Your task to perform on an android device: turn vacation reply on in the gmail app Image 0: 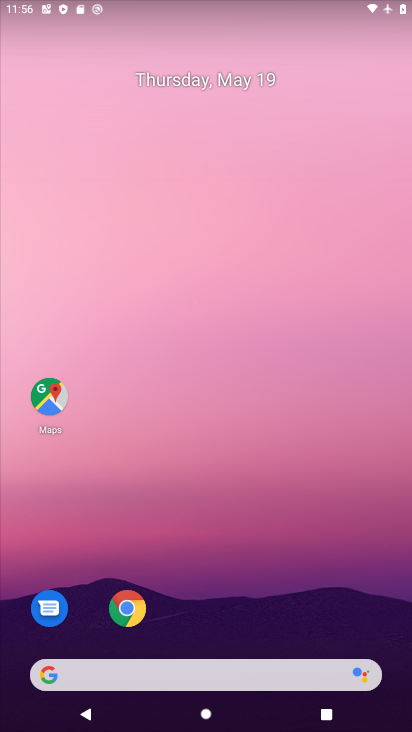
Step 0: drag from (381, 620) to (385, 189)
Your task to perform on an android device: turn vacation reply on in the gmail app Image 1: 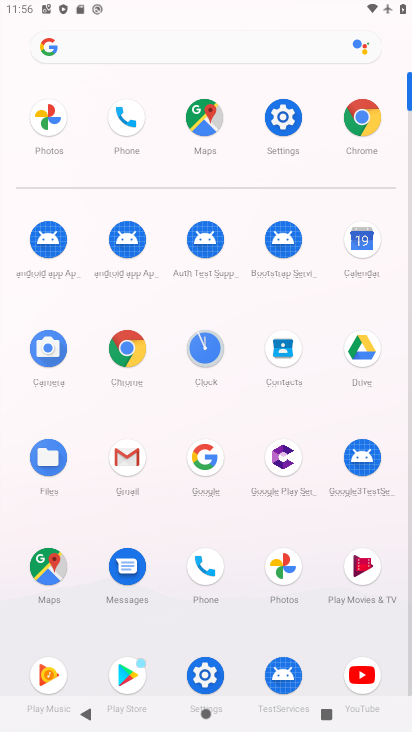
Step 1: click (134, 466)
Your task to perform on an android device: turn vacation reply on in the gmail app Image 2: 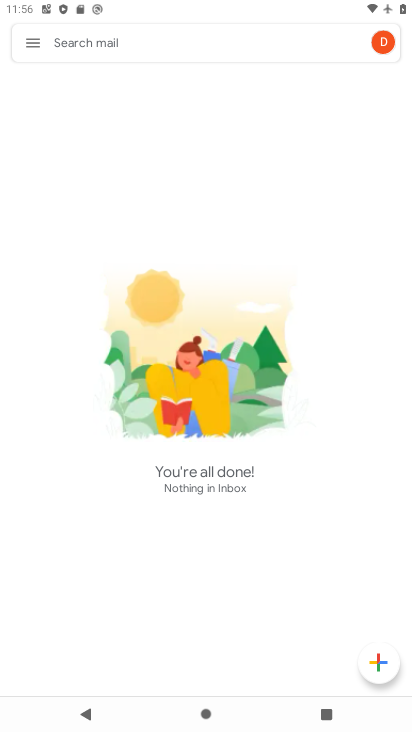
Step 2: click (31, 46)
Your task to perform on an android device: turn vacation reply on in the gmail app Image 3: 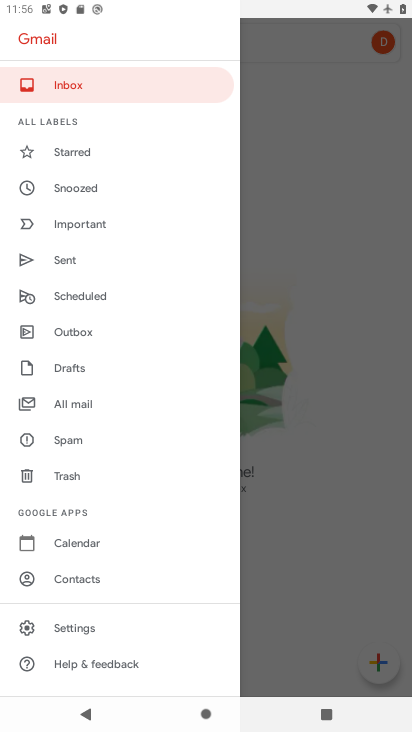
Step 3: drag from (149, 380) to (160, 286)
Your task to perform on an android device: turn vacation reply on in the gmail app Image 4: 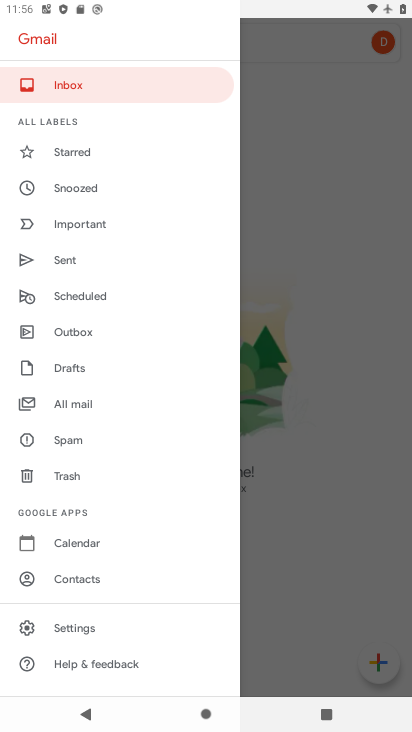
Step 4: click (106, 629)
Your task to perform on an android device: turn vacation reply on in the gmail app Image 5: 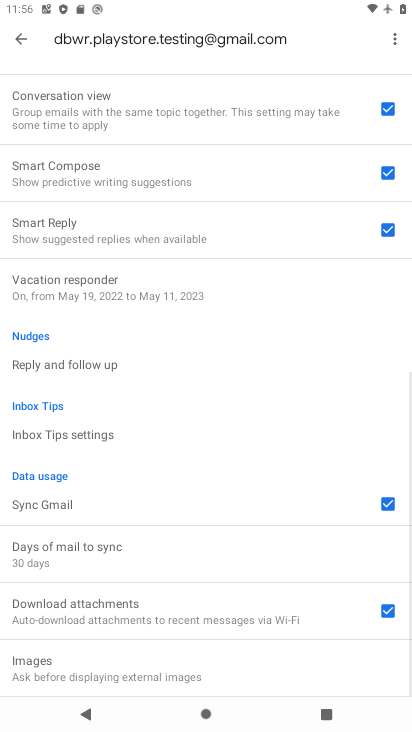
Step 5: drag from (240, 554) to (256, 476)
Your task to perform on an android device: turn vacation reply on in the gmail app Image 6: 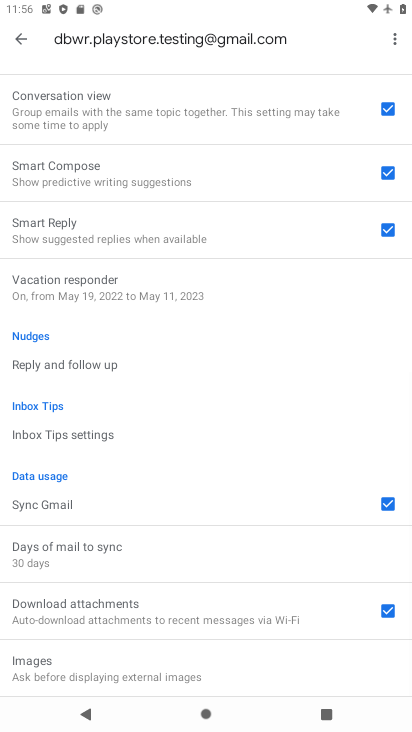
Step 6: drag from (243, 584) to (245, 463)
Your task to perform on an android device: turn vacation reply on in the gmail app Image 7: 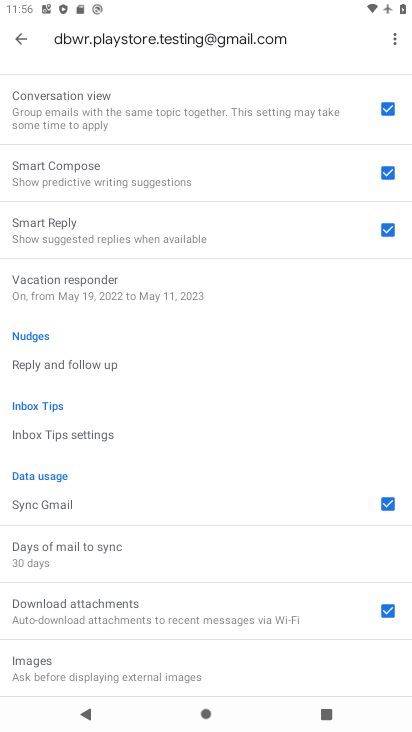
Step 7: drag from (245, 363) to (223, 480)
Your task to perform on an android device: turn vacation reply on in the gmail app Image 8: 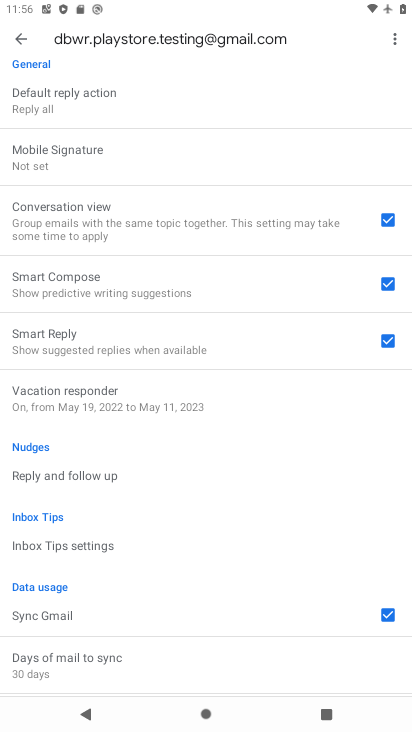
Step 8: drag from (255, 346) to (256, 431)
Your task to perform on an android device: turn vacation reply on in the gmail app Image 9: 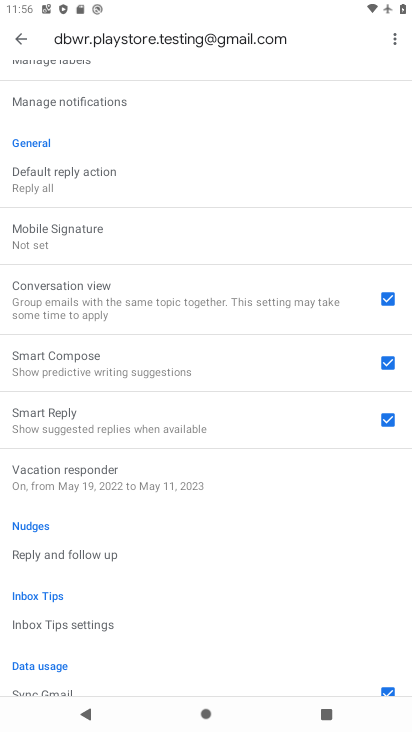
Step 9: click (209, 485)
Your task to perform on an android device: turn vacation reply on in the gmail app Image 10: 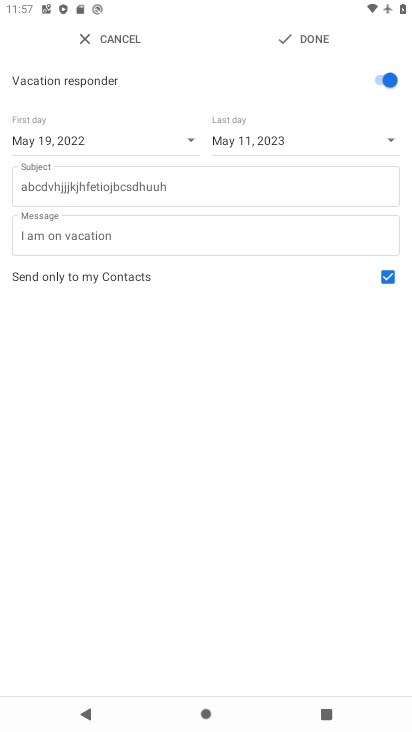
Step 10: task complete